Your task to perform on an android device: Open calendar and show me the first week of next month Image 0: 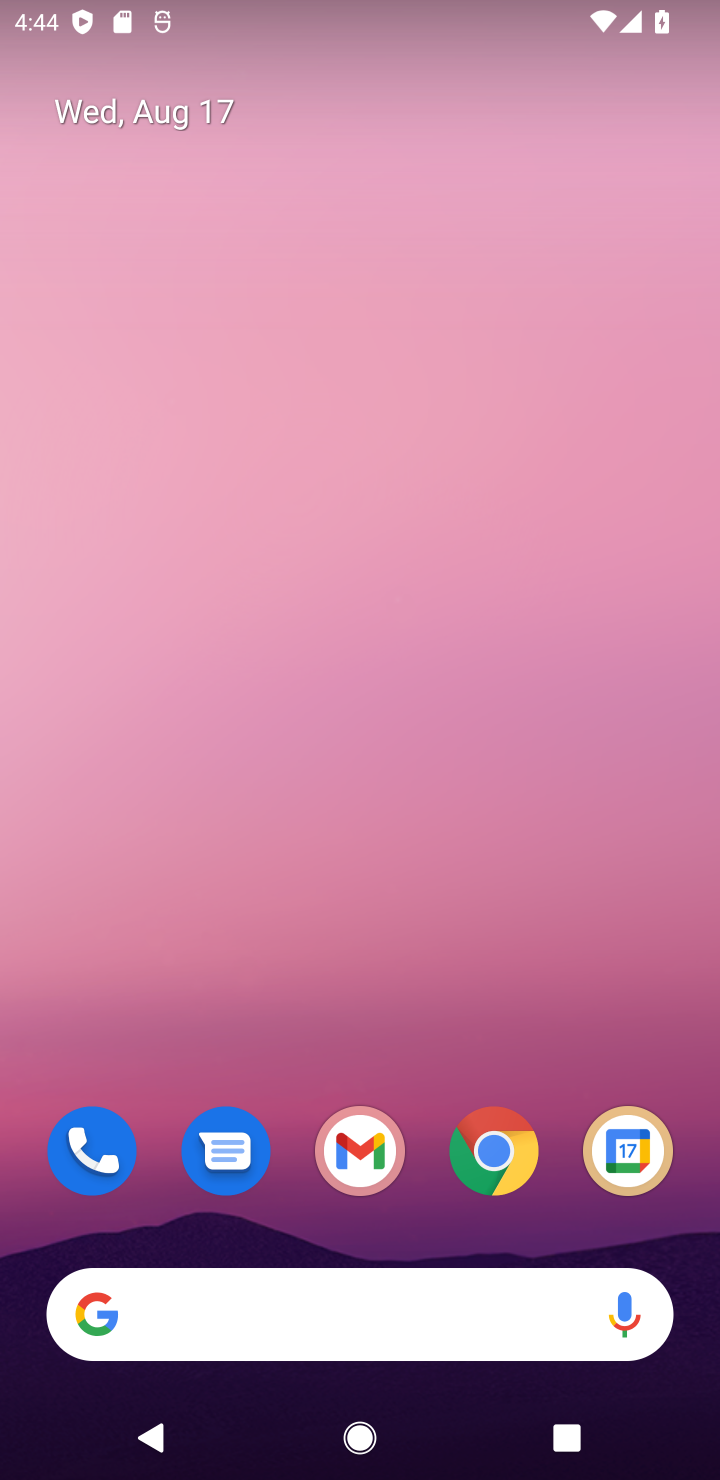
Step 0: click (410, 1251)
Your task to perform on an android device: Open calendar and show me the first week of next month Image 1: 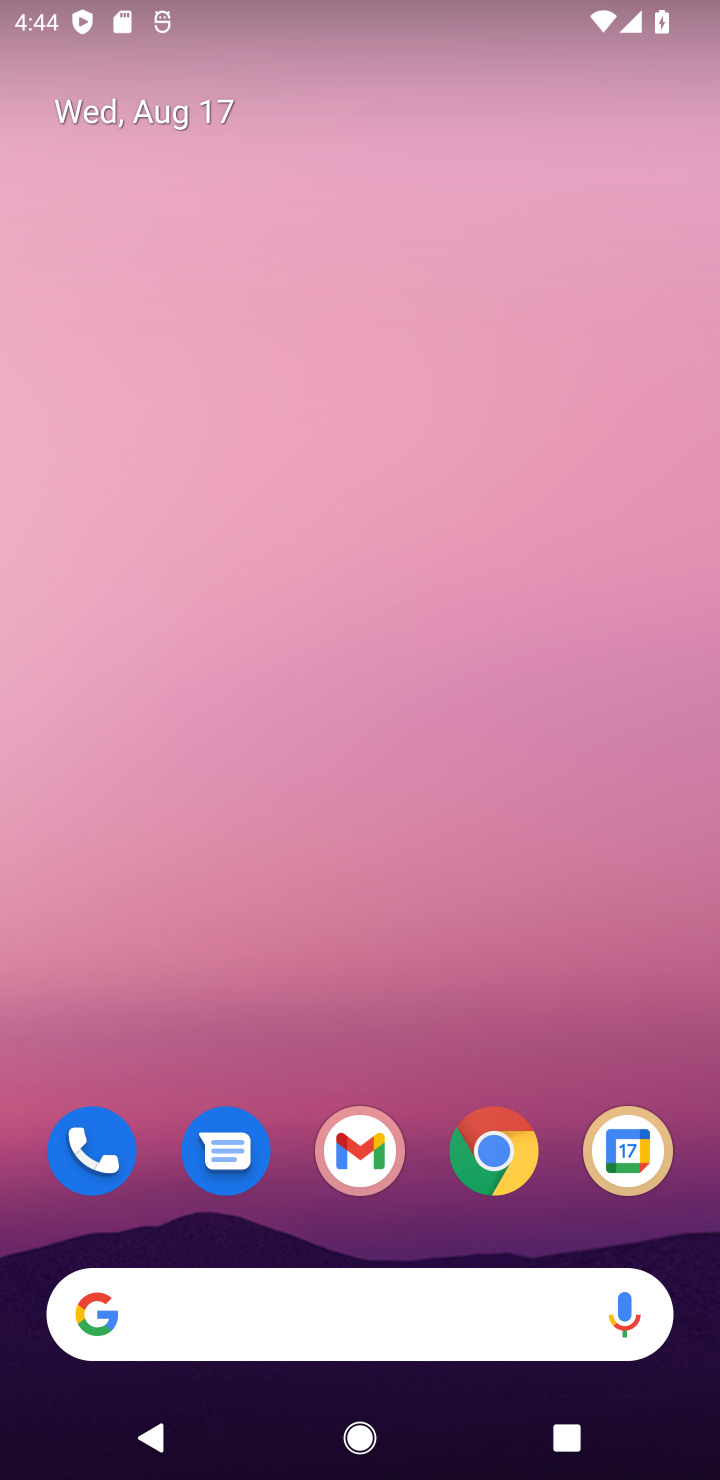
Step 1: click (621, 1163)
Your task to perform on an android device: Open calendar and show me the first week of next month Image 2: 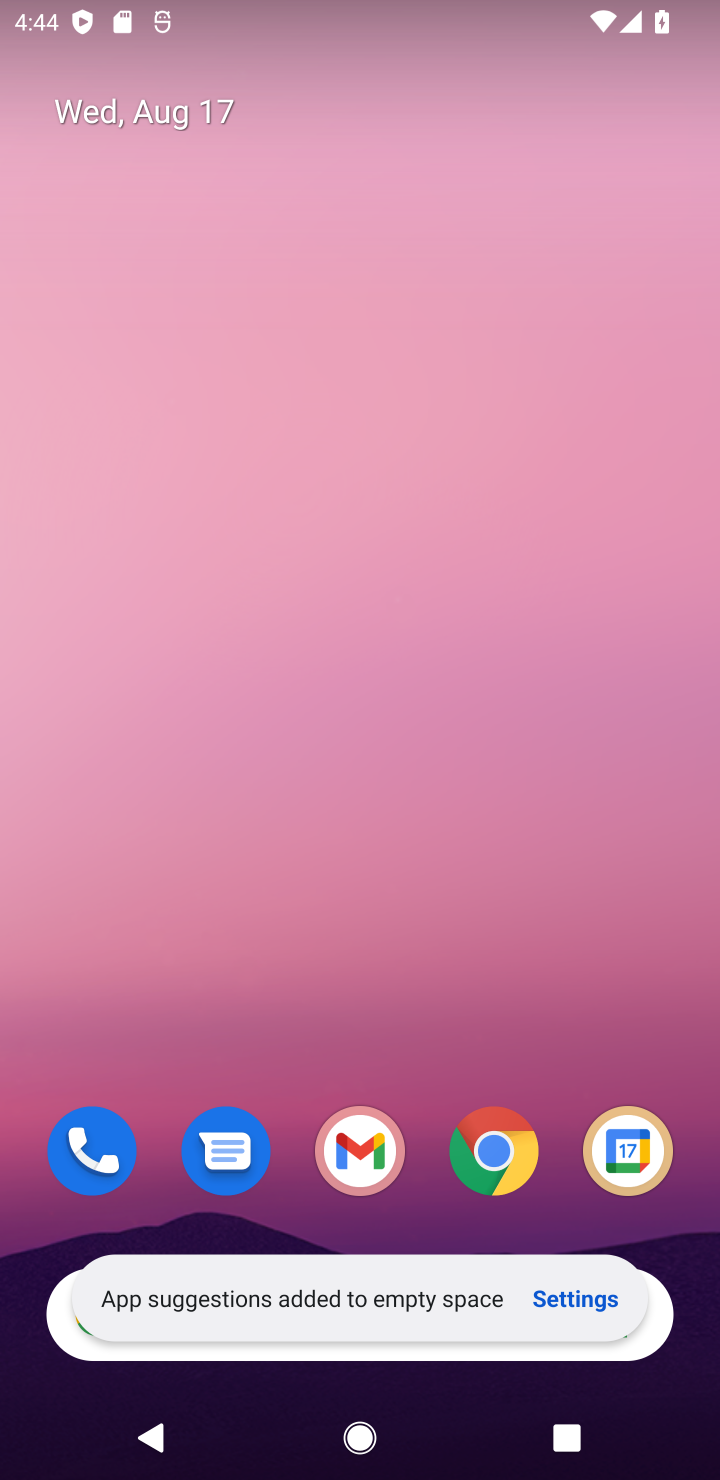
Step 2: click (621, 1152)
Your task to perform on an android device: Open calendar and show me the first week of next month Image 3: 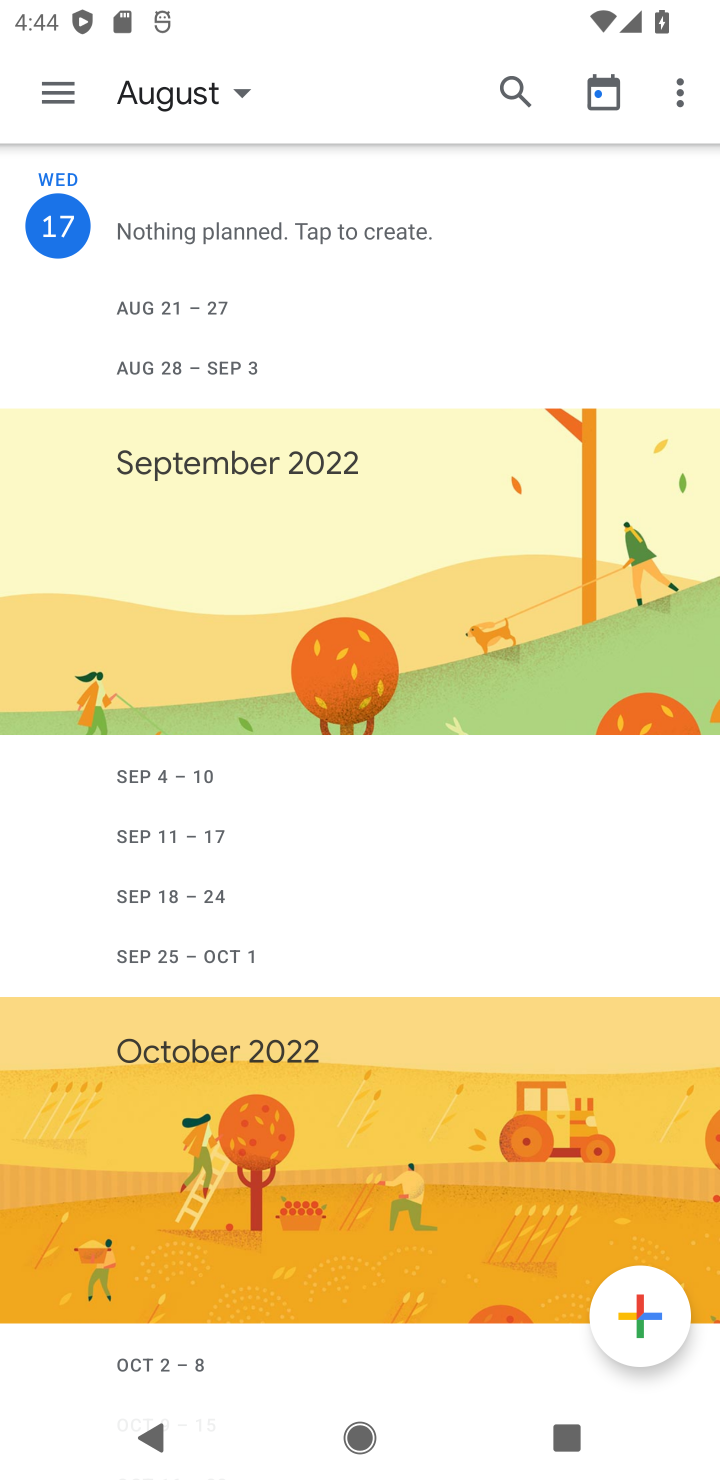
Step 3: click (238, 96)
Your task to perform on an android device: Open calendar and show me the first week of next month Image 4: 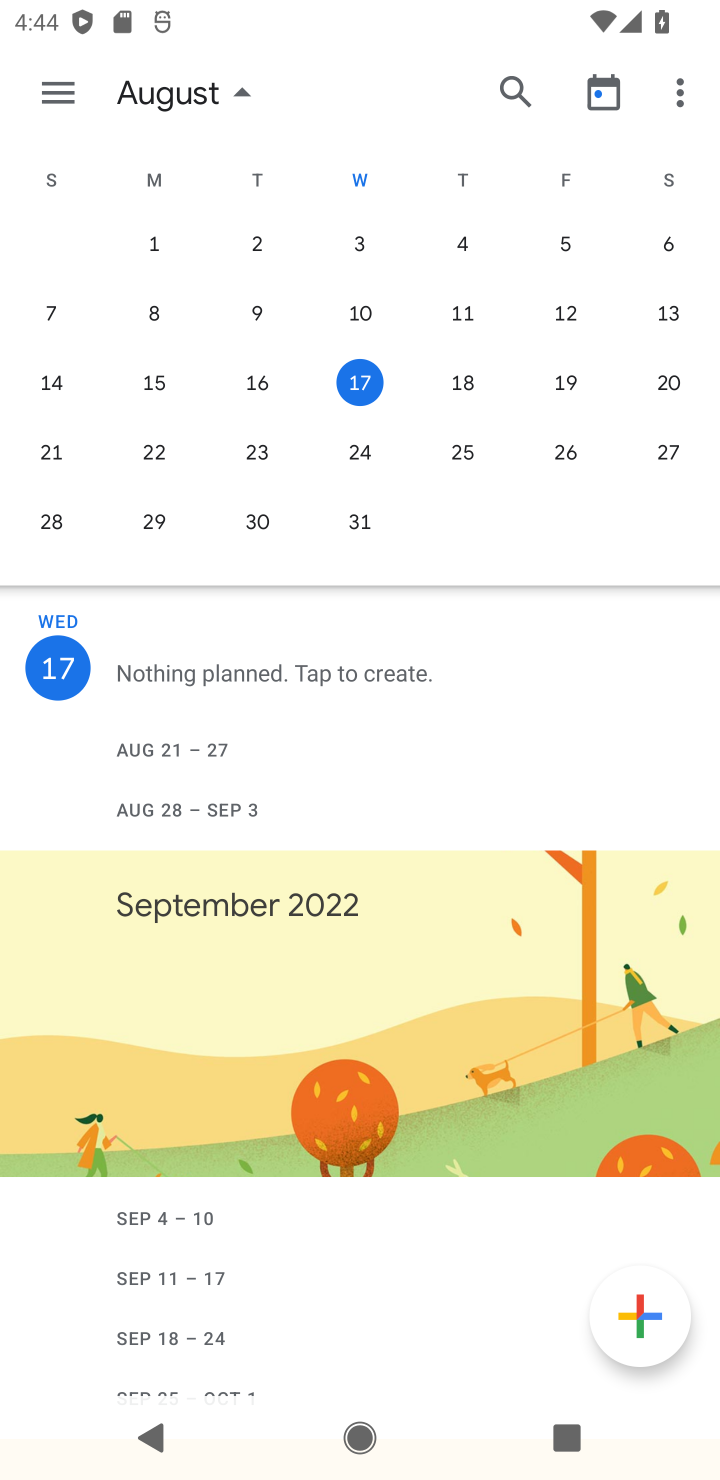
Step 4: task complete